Your task to perform on an android device: Open notification settings Image 0: 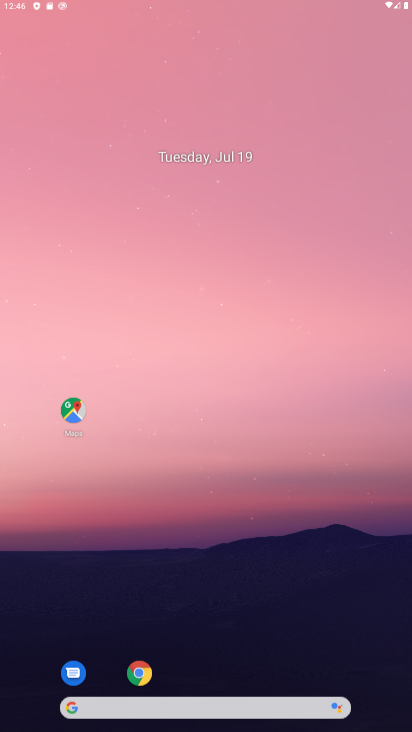
Step 0: press back button
Your task to perform on an android device: Open notification settings Image 1: 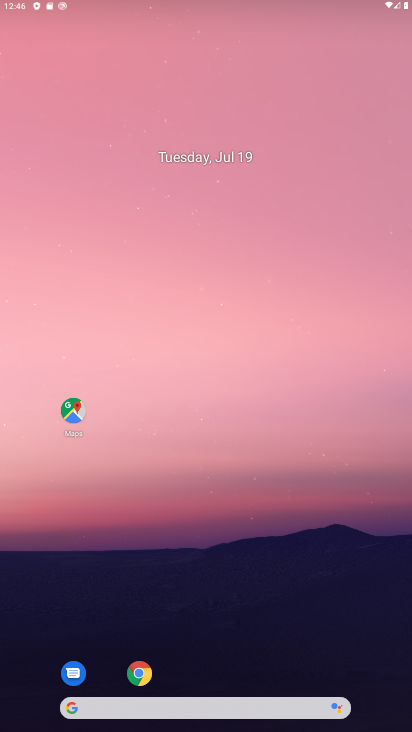
Step 1: drag from (185, 178) to (195, 289)
Your task to perform on an android device: Open notification settings Image 2: 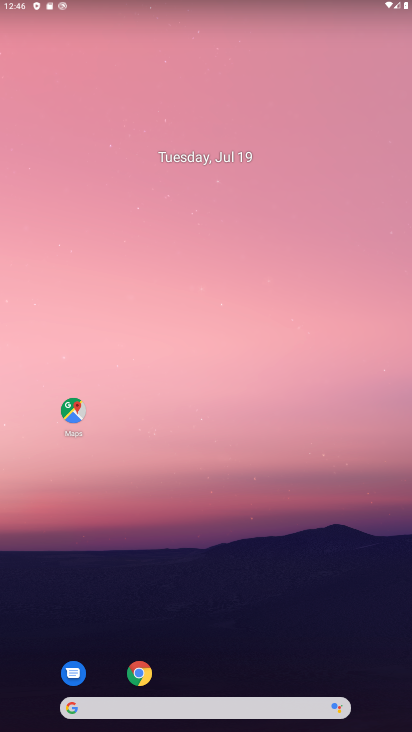
Step 2: drag from (186, 295) to (140, 280)
Your task to perform on an android device: Open notification settings Image 3: 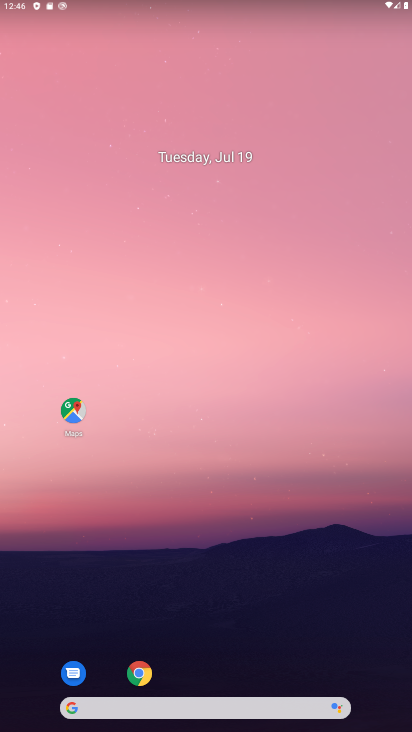
Step 3: drag from (184, 486) to (167, 279)
Your task to perform on an android device: Open notification settings Image 4: 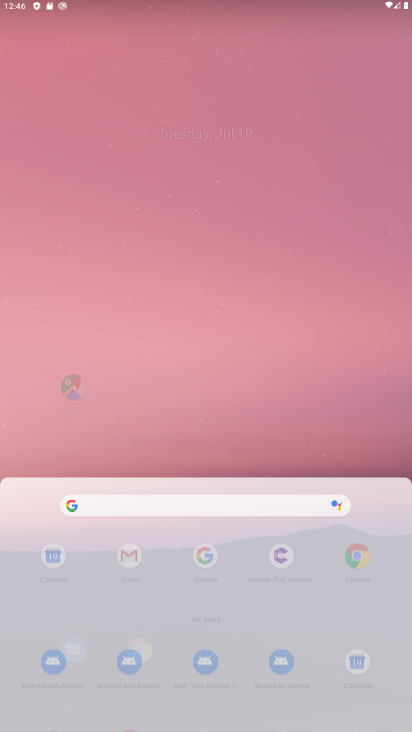
Step 4: drag from (188, 493) to (166, 334)
Your task to perform on an android device: Open notification settings Image 5: 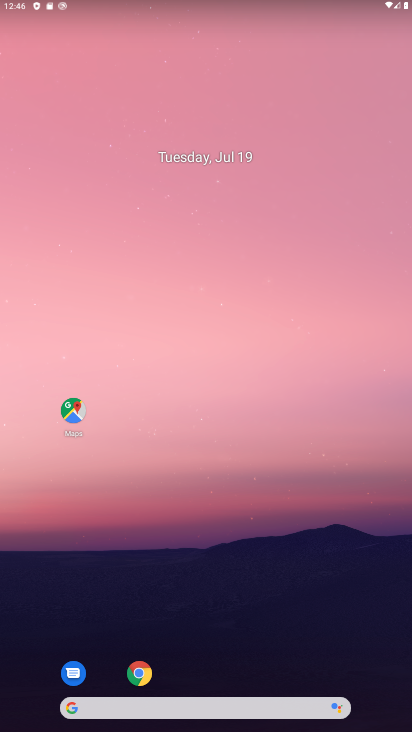
Step 5: drag from (159, 586) to (129, 265)
Your task to perform on an android device: Open notification settings Image 6: 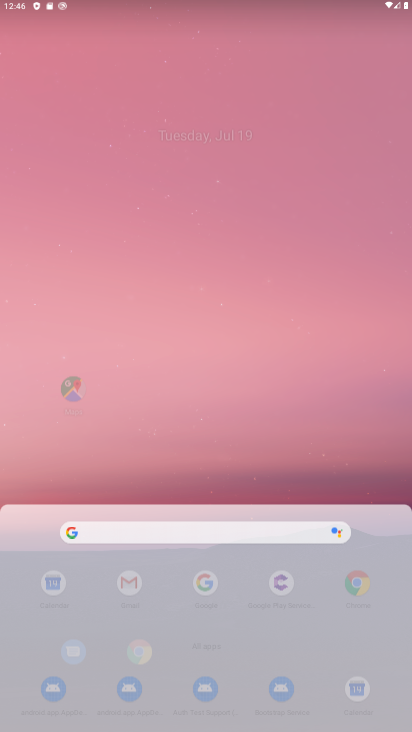
Step 6: drag from (245, 553) to (245, 232)
Your task to perform on an android device: Open notification settings Image 7: 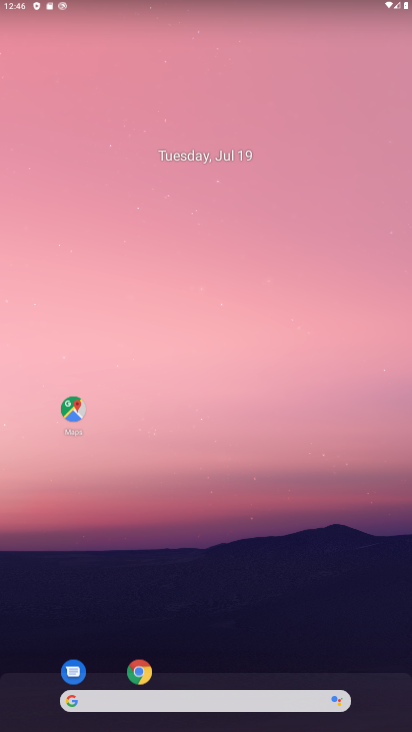
Step 7: drag from (205, 379) to (205, 263)
Your task to perform on an android device: Open notification settings Image 8: 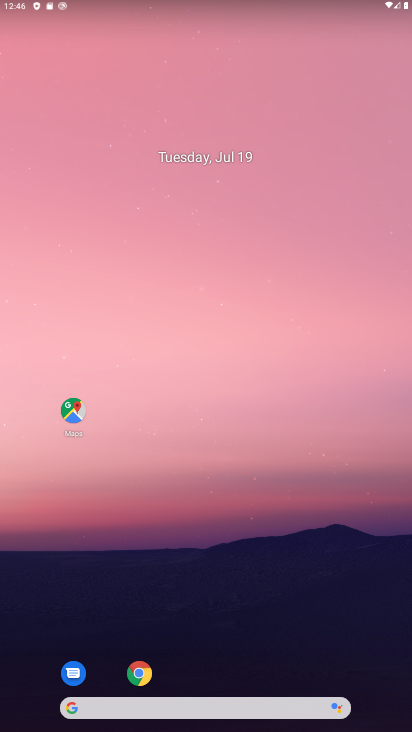
Step 8: drag from (280, 541) to (238, 251)
Your task to perform on an android device: Open notification settings Image 9: 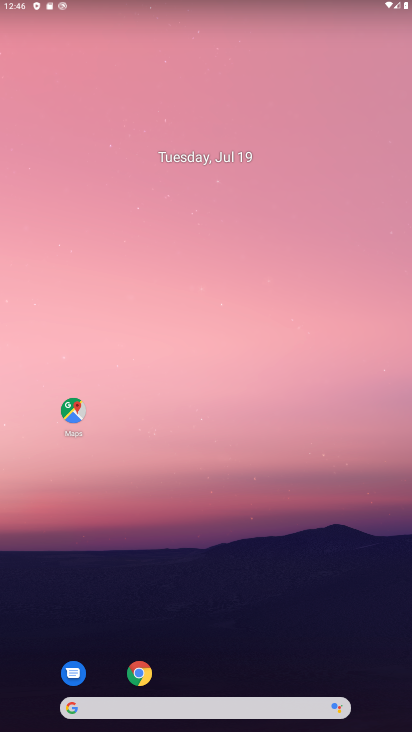
Step 9: drag from (221, 672) to (188, 216)
Your task to perform on an android device: Open notification settings Image 10: 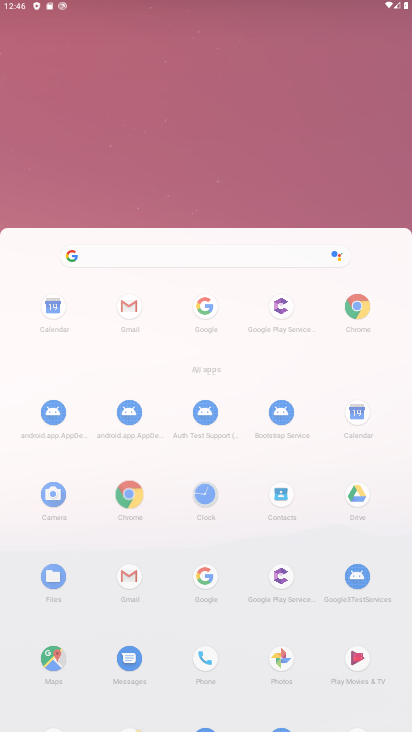
Step 10: drag from (240, 596) to (253, 208)
Your task to perform on an android device: Open notification settings Image 11: 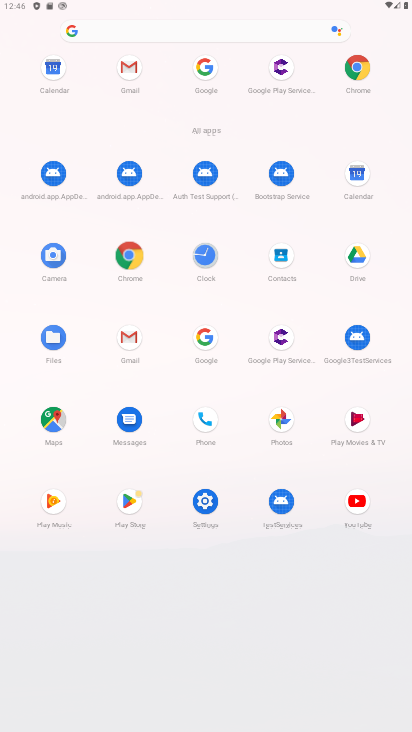
Step 11: drag from (186, 438) to (185, 293)
Your task to perform on an android device: Open notification settings Image 12: 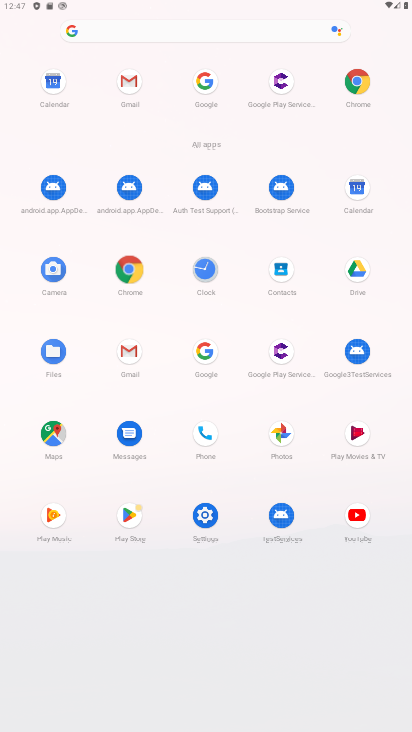
Step 12: click (210, 510)
Your task to perform on an android device: Open notification settings Image 13: 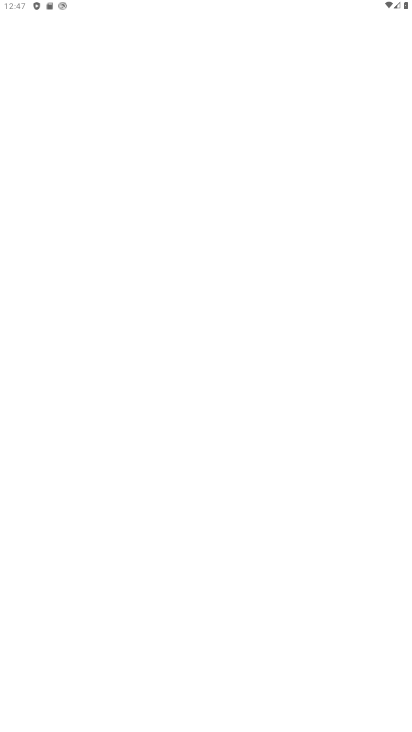
Step 13: click (208, 521)
Your task to perform on an android device: Open notification settings Image 14: 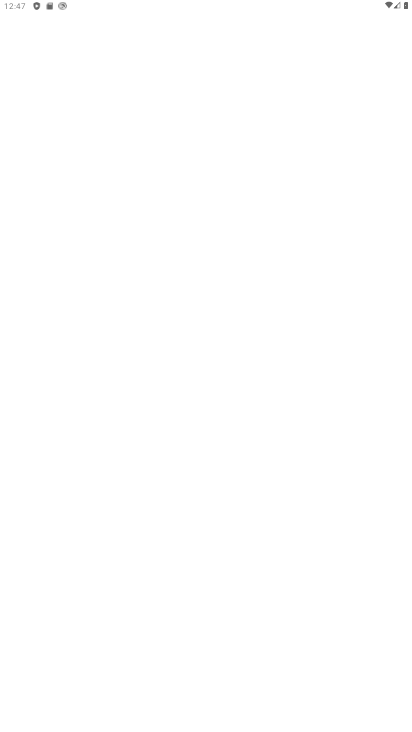
Step 14: click (209, 521)
Your task to perform on an android device: Open notification settings Image 15: 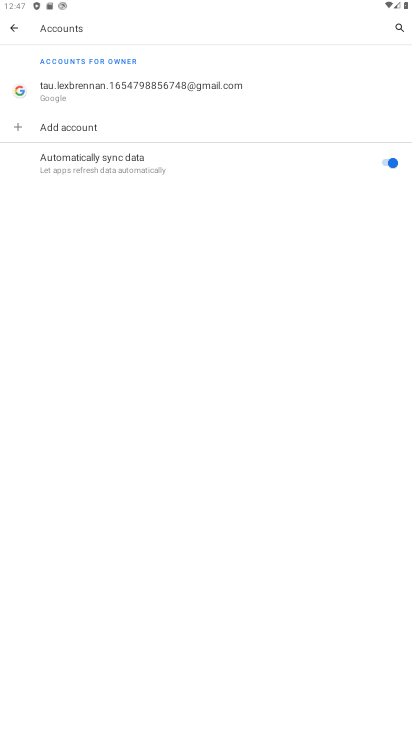
Step 15: click (16, 28)
Your task to perform on an android device: Open notification settings Image 16: 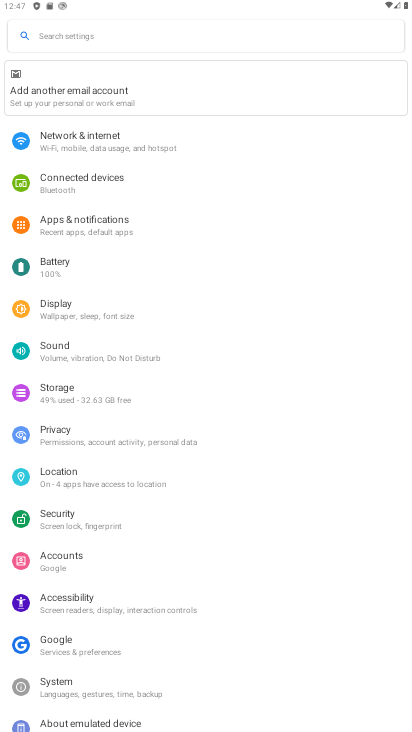
Step 16: click (77, 219)
Your task to perform on an android device: Open notification settings Image 17: 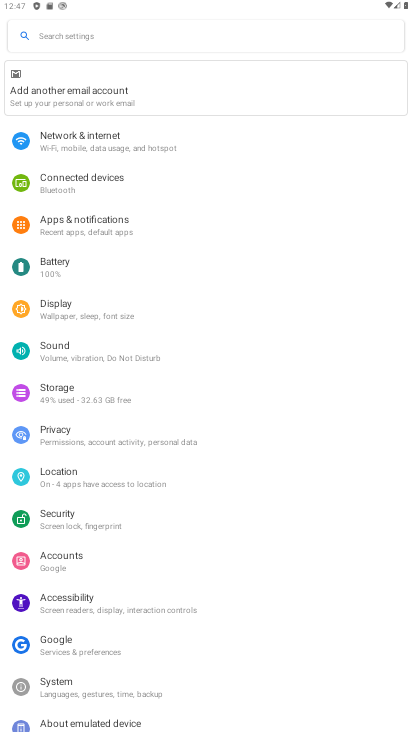
Step 17: click (80, 221)
Your task to perform on an android device: Open notification settings Image 18: 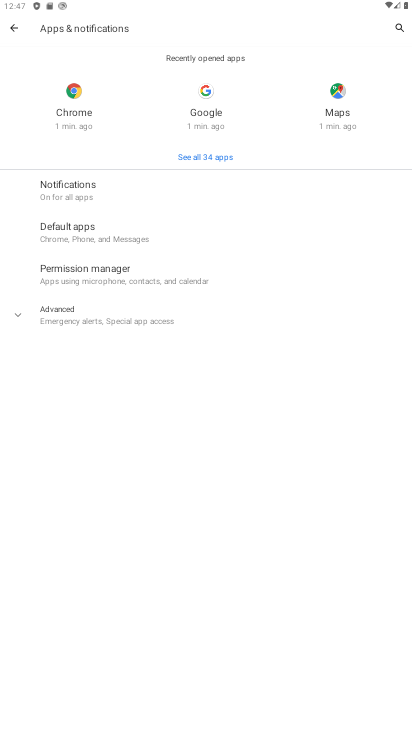
Step 18: click (60, 191)
Your task to perform on an android device: Open notification settings Image 19: 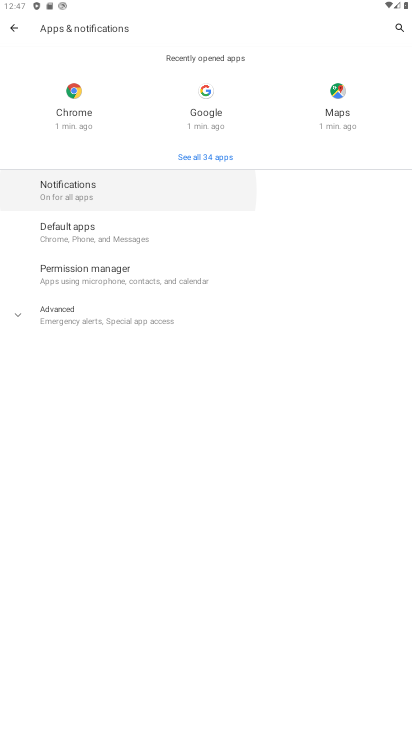
Step 19: click (60, 189)
Your task to perform on an android device: Open notification settings Image 20: 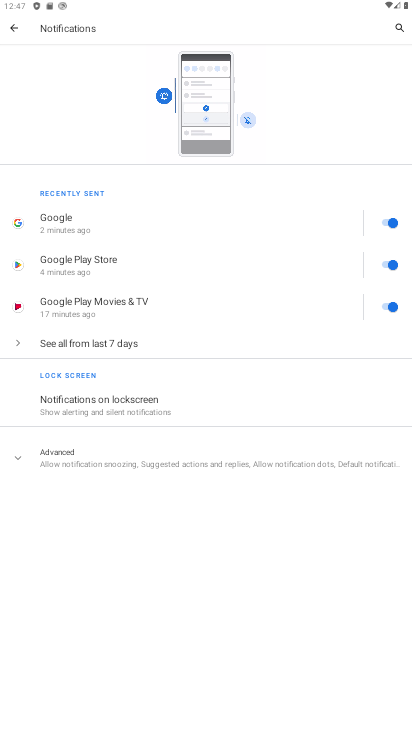
Step 20: task complete